Your task to perform on an android device: open chrome privacy settings Image 0: 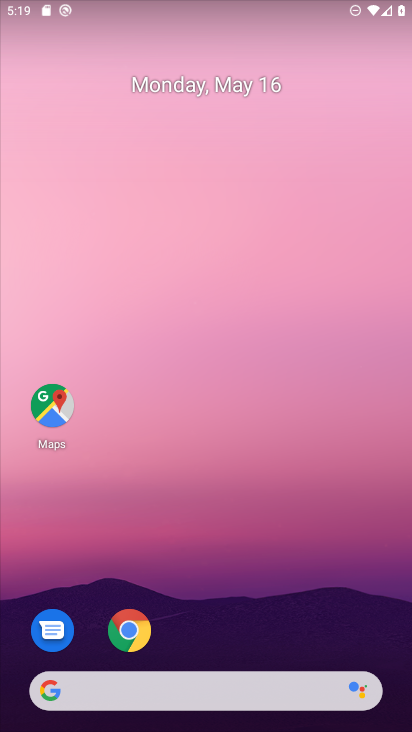
Step 0: press home button
Your task to perform on an android device: open chrome privacy settings Image 1: 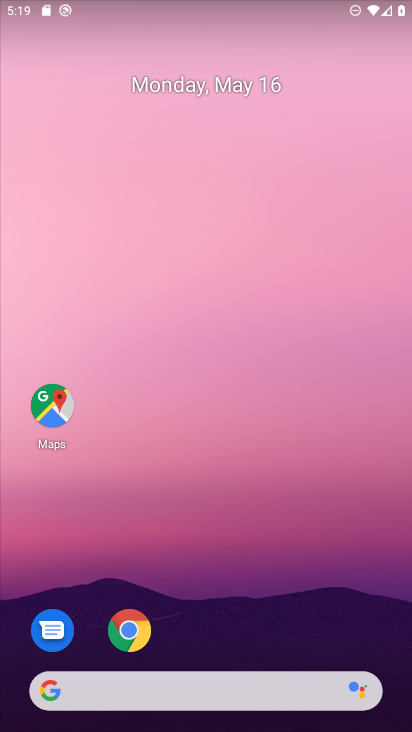
Step 1: click (125, 637)
Your task to perform on an android device: open chrome privacy settings Image 2: 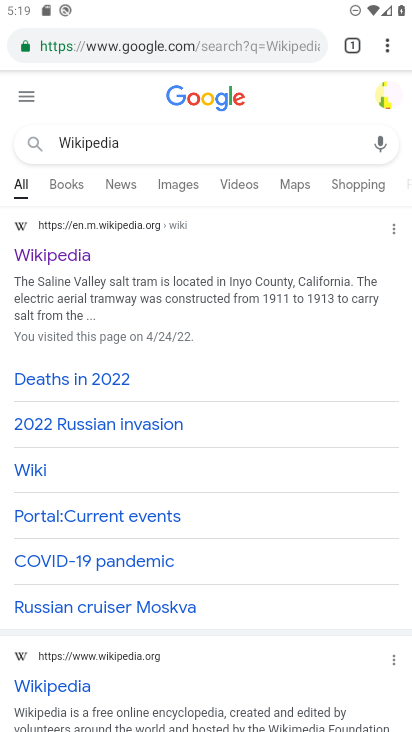
Step 2: click (125, 48)
Your task to perform on an android device: open chrome privacy settings Image 3: 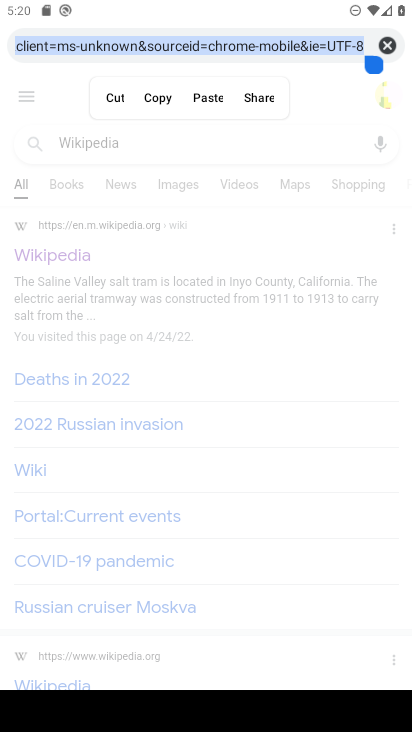
Step 3: click (81, 318)
Your task to perform on an android device: open chrome privacy settings Image 4: 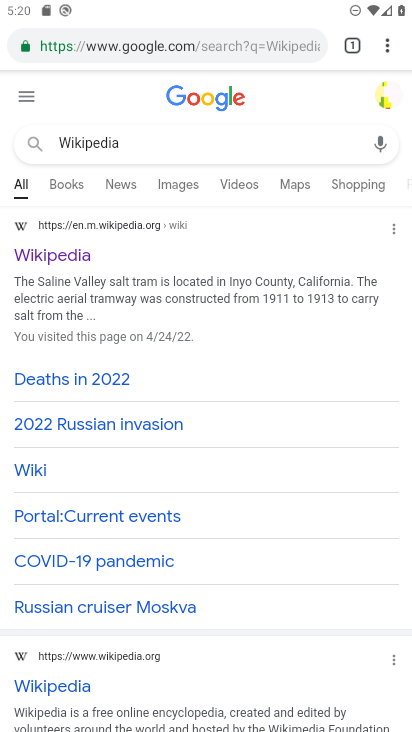
Step 4: press back button
Your task to perform on an android device: open chrome privacy settings Image 5: 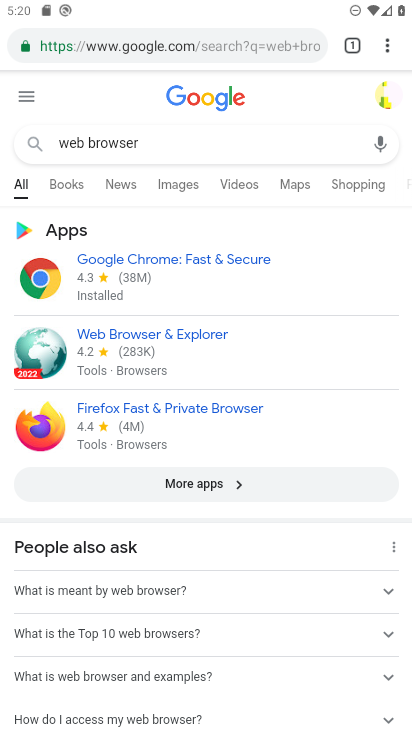
Step 5: drag from (379, 39) to (208, 518)
Your task to perform on an android device: open chrome privacy settings Image 6: 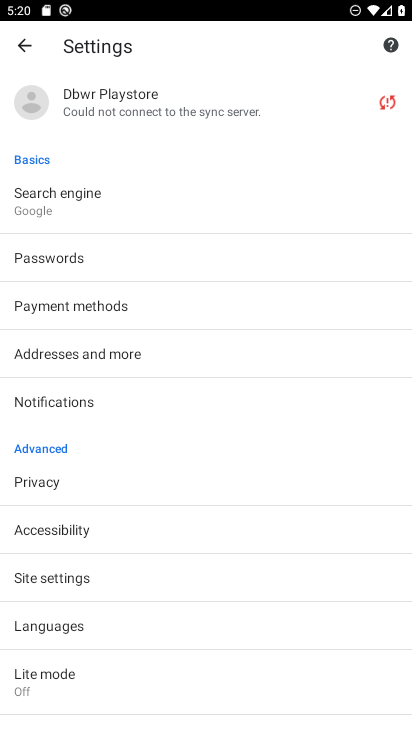
Step 6: click (113, 481)
Your task to perform on an android device: open chrome privacy settings Image 7: 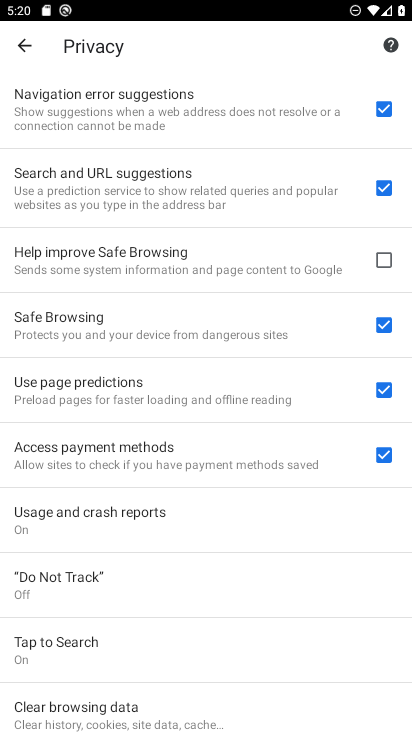
Step 7: task complete